Your task to perform on an android device: add a contact Image 0: 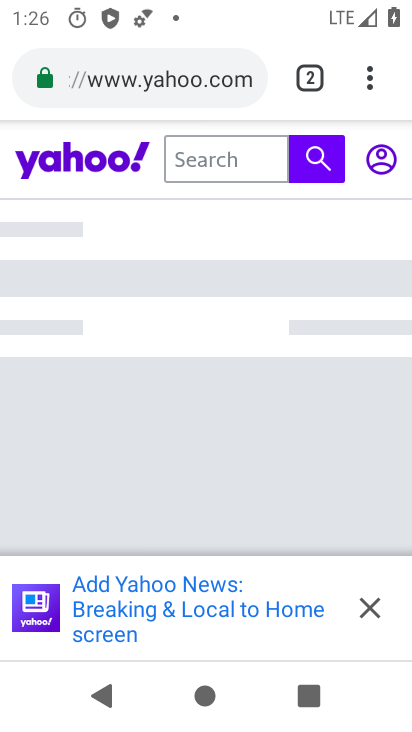
Step 0: press home button
Your task to perform on an android device: add a contact Image 1: 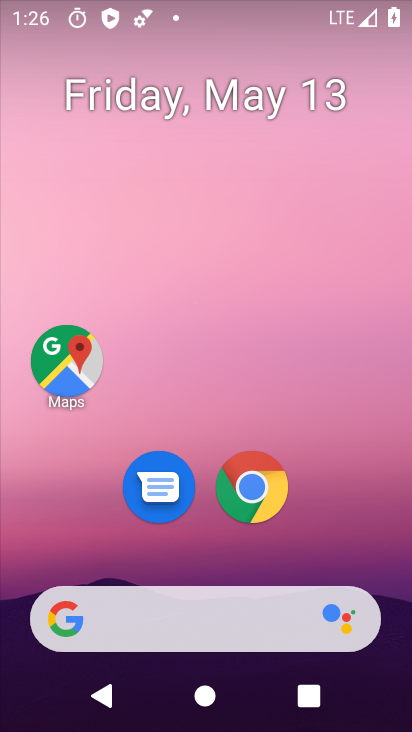
Step 1: drag from (359, 543) to (320, 222)
Your task to perform on an android device: add a contact Image 2: 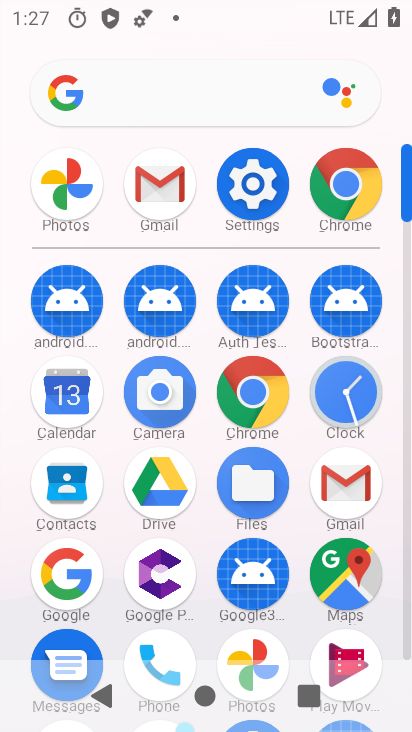
Step 2: drag from (209, 622) to (211, 389)
Your task to perform on an android device: add a contact Image 3: 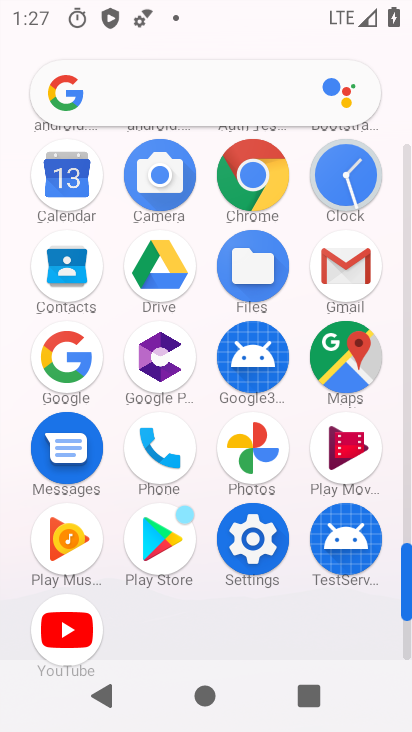
Step 3: click (62, 269)
Your task to perform on an android device: add a contact Image 4: 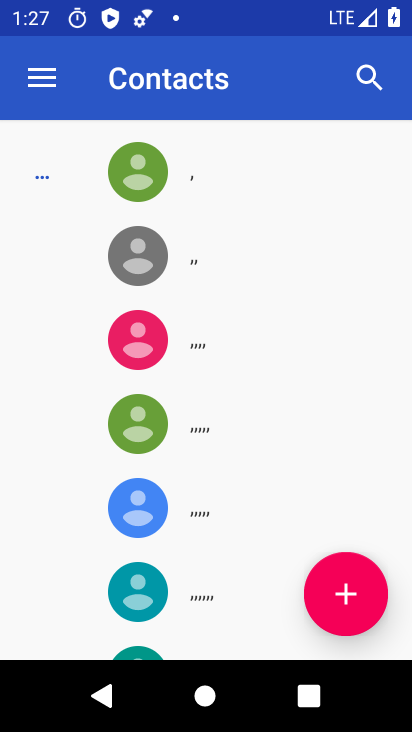
Step 4: click (347, 613)
Your task to perform on an android device: add a contact Image 5: 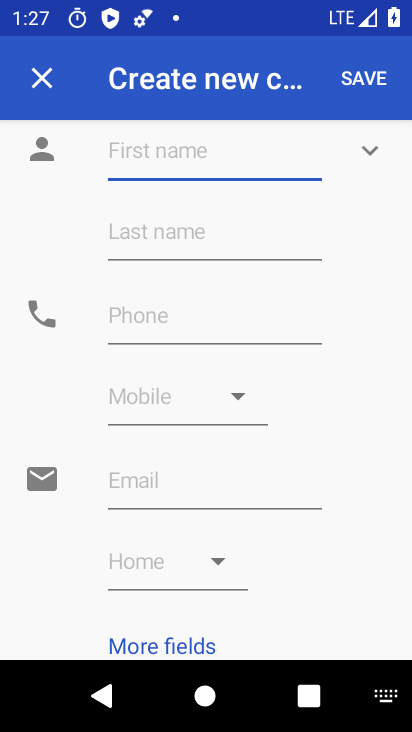
Step 5: click (232, 160)
Your task to perform on an android device: add a contact Image 6: 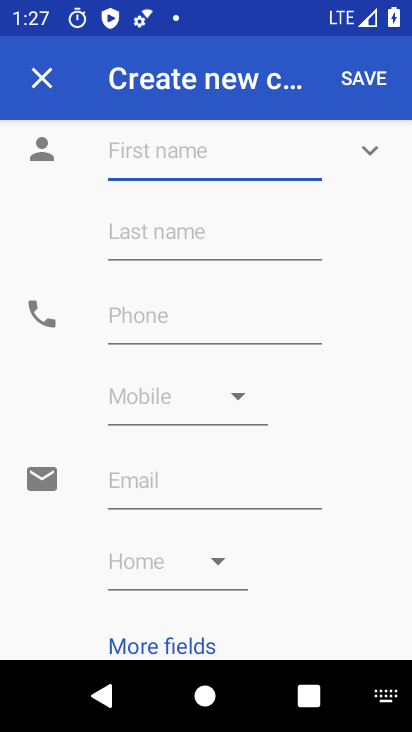
Step 6: type "asjd"
Your task to perform on an android device: add a contact Image 7: 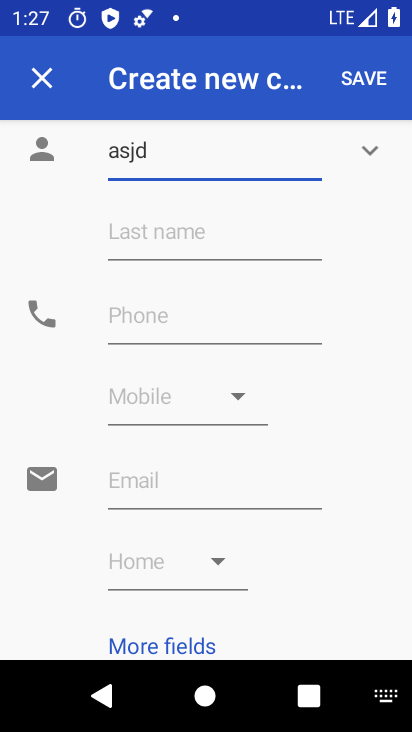
Step 7: click (146, 317)
Your task to perform on an android device: add a contact Image 8: 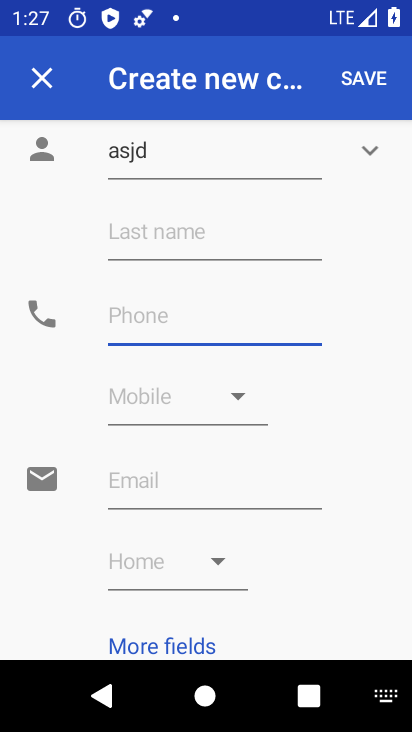
Step 8: type "84894384"
Your task to perform on an android device: add a contact Image 9: 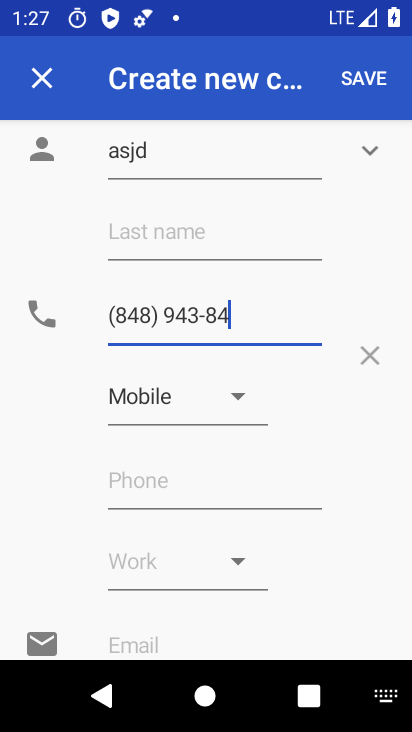
Step 9: click (379, 78)
Your task to perform on an android device: add a contact Image 10: 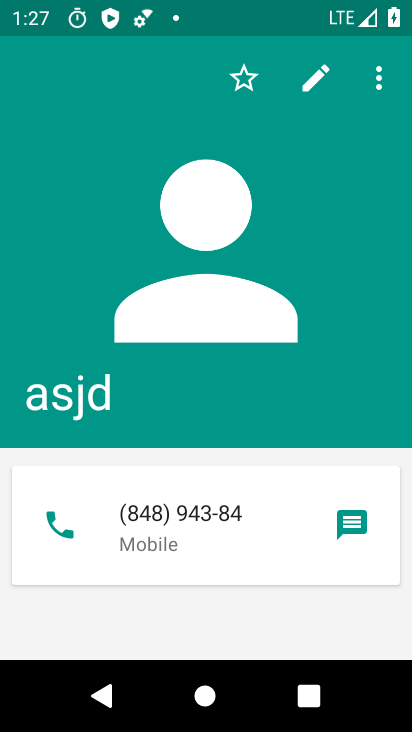
Step 10: task complete